Your task to perform on an android device: What's the weather going to be this weekend? Image 0: 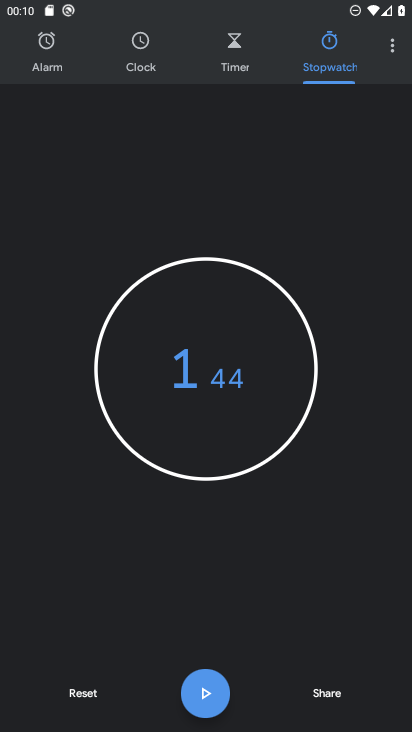
Step 0: press home button
Your task to perform on an android device: What's the weather going to be this weekend? Image 1: 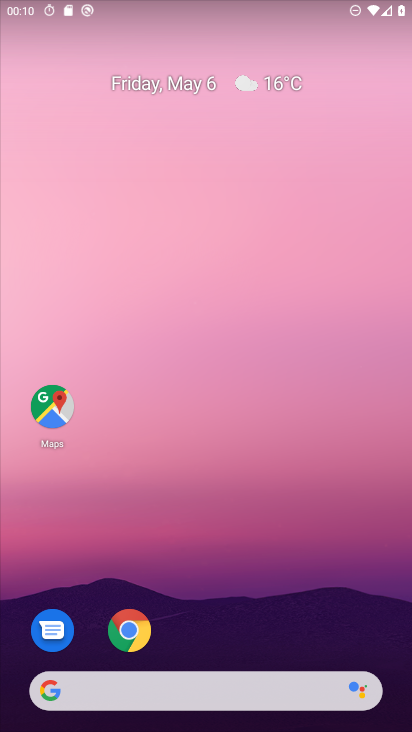
Step 1: drag from (225, 501) to (207, 100)
Your task to perform on an android device: What's the weather going to be this weekend? Image 2: 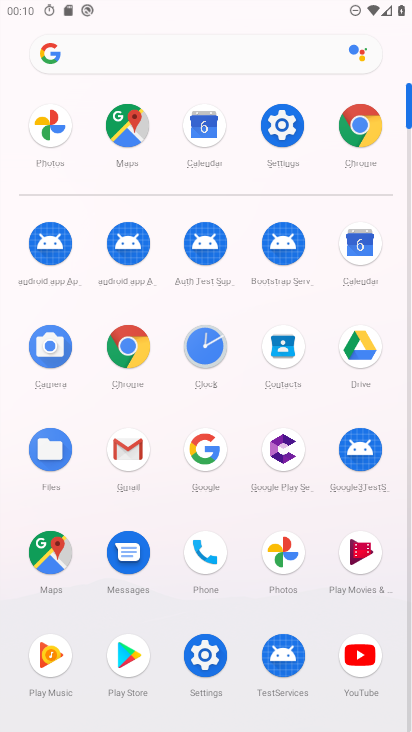
Step 2: press home button
Your task to perform on an android device: What's the weather going to be this weekend? Image 3: 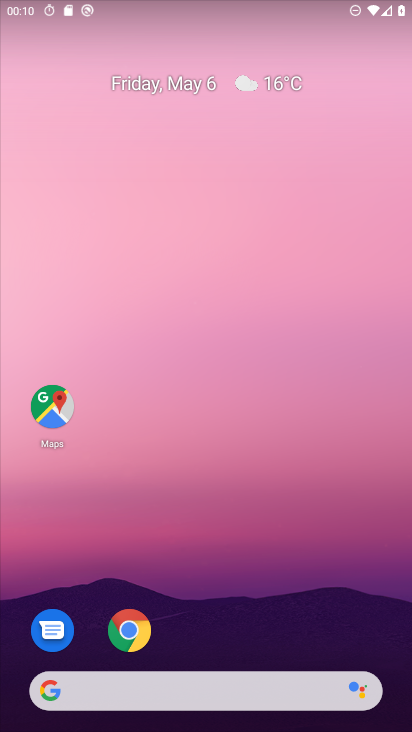
Step 3: click (279, 84)
Your task to perform on an android device: What's the weather going to be this weekend? Image 4: 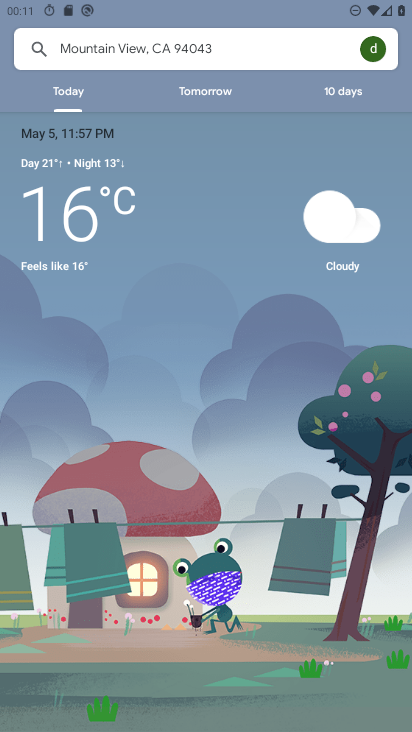
Step 4: click (327, 87)
Your task to perform on an android device: What's the weather going to be this weekend? Image 5: 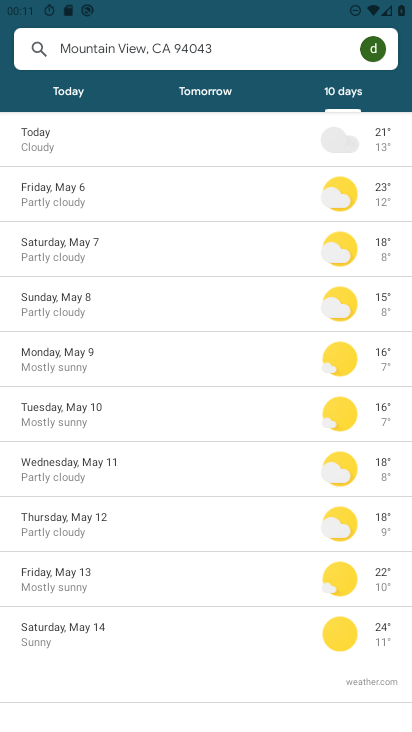
Step 5: task complete